Your task to perform on an android device: What's the news in Pakistan? Image 0: 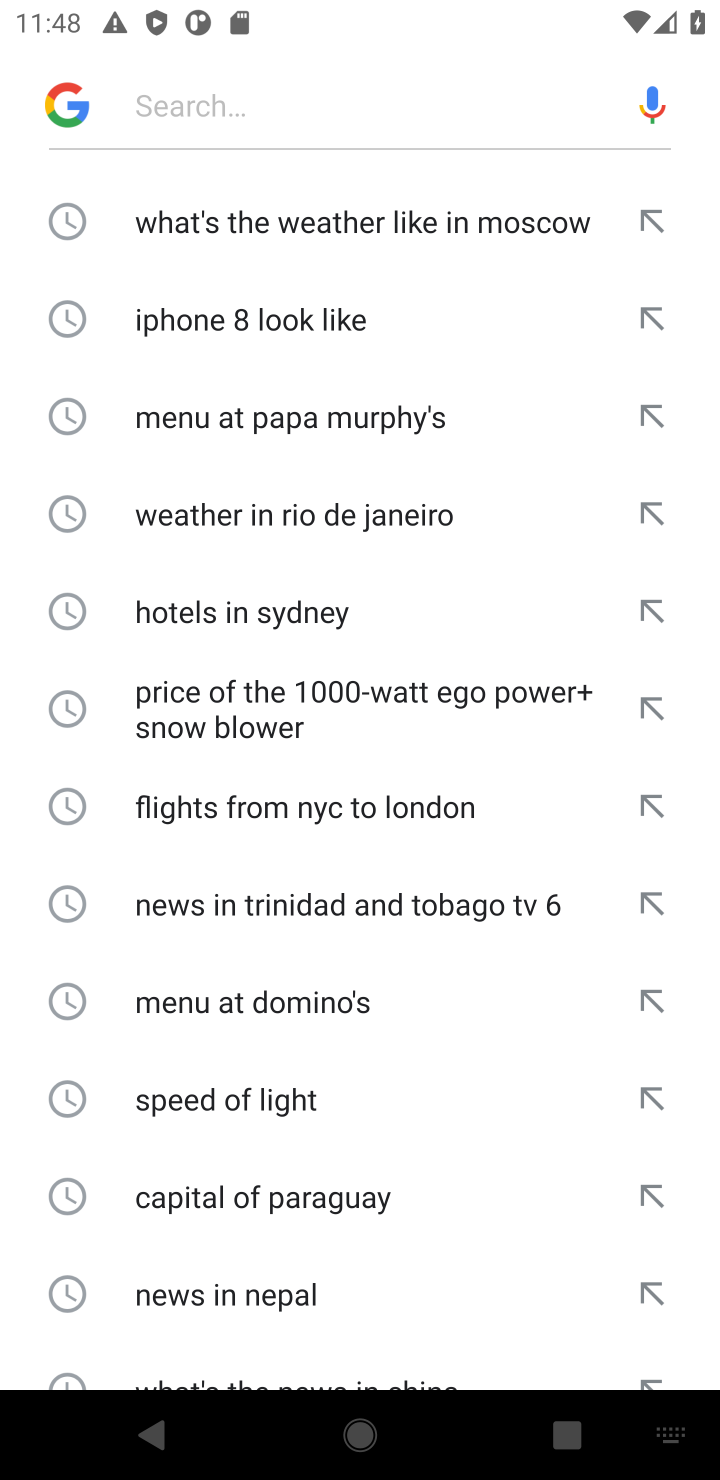
Step 0: press home button
Your task to perform on an android device: What's the news in Pakistan? Image 1: 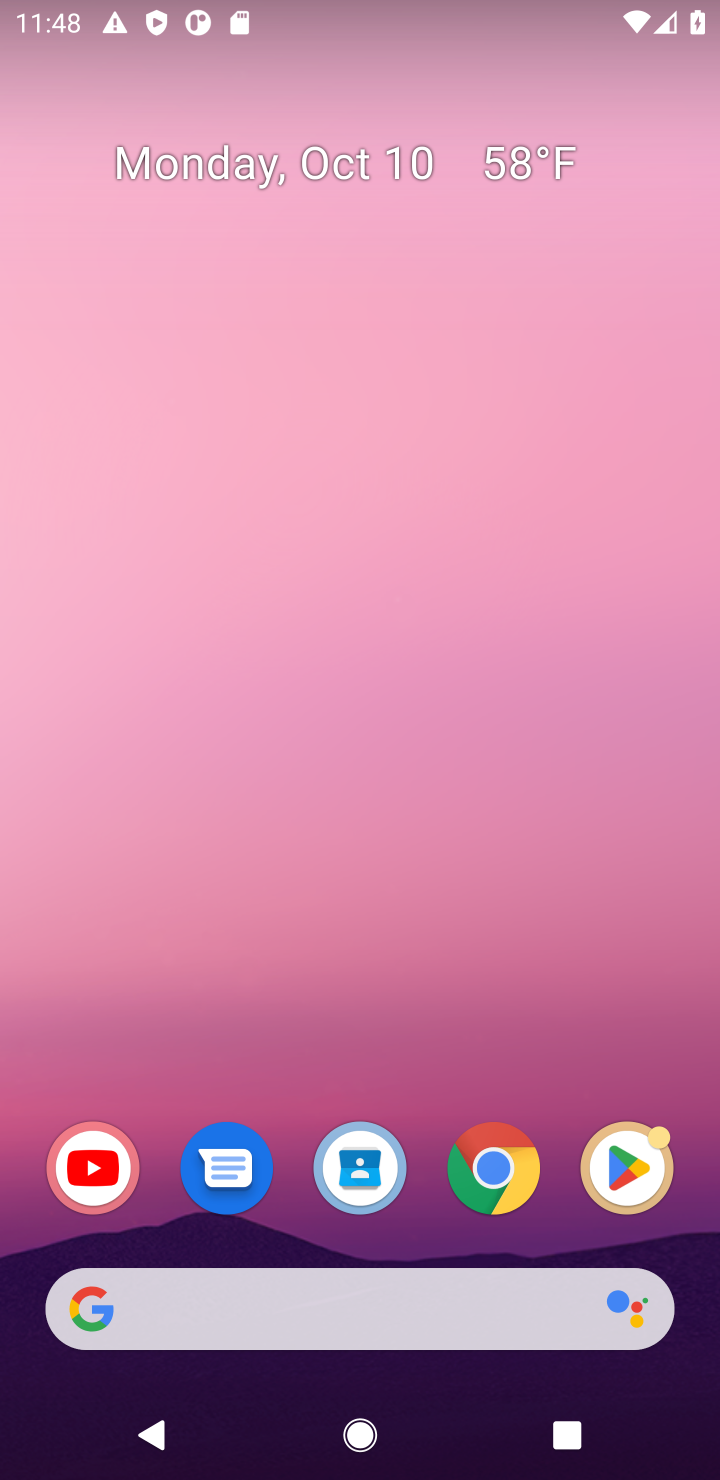
Step 1: click (332, 1317)
Your task to perform on an android device: What's the news in Pakistan? Image 2: 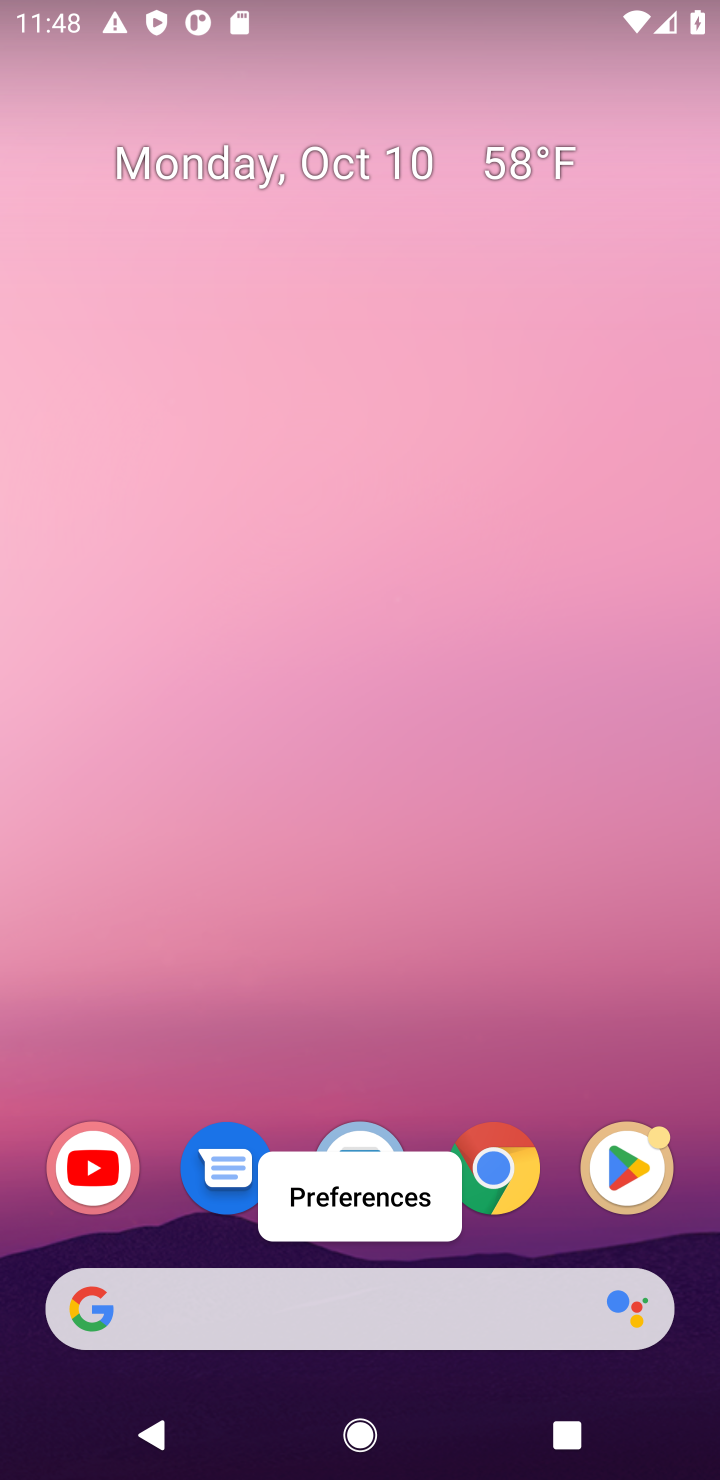
Step 2: click (317, 1334)
Your task to perform on an android device: What's the news in Pakistan? Image 3: 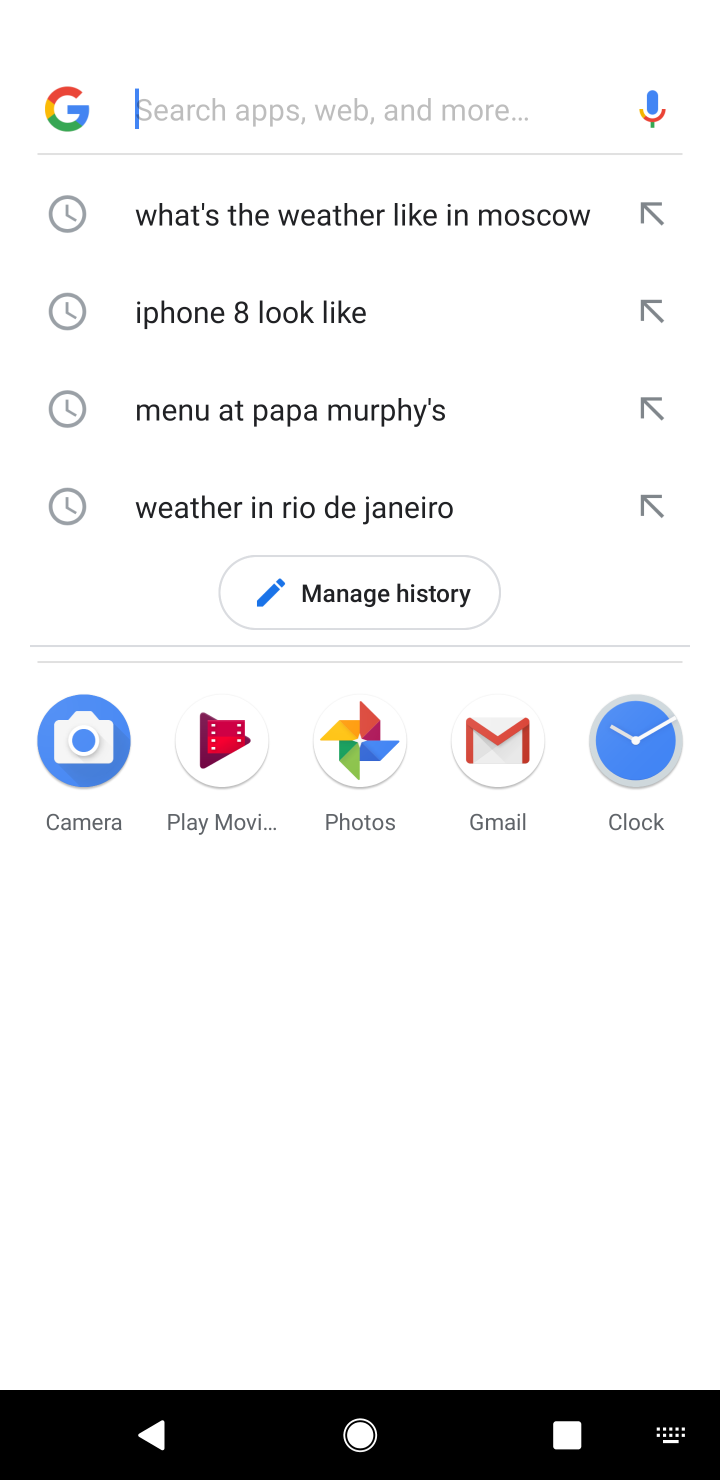
Step 3: type "news in Pakistan"
Your task to perform on an android device: What's the news in Pakistan? Image 4: 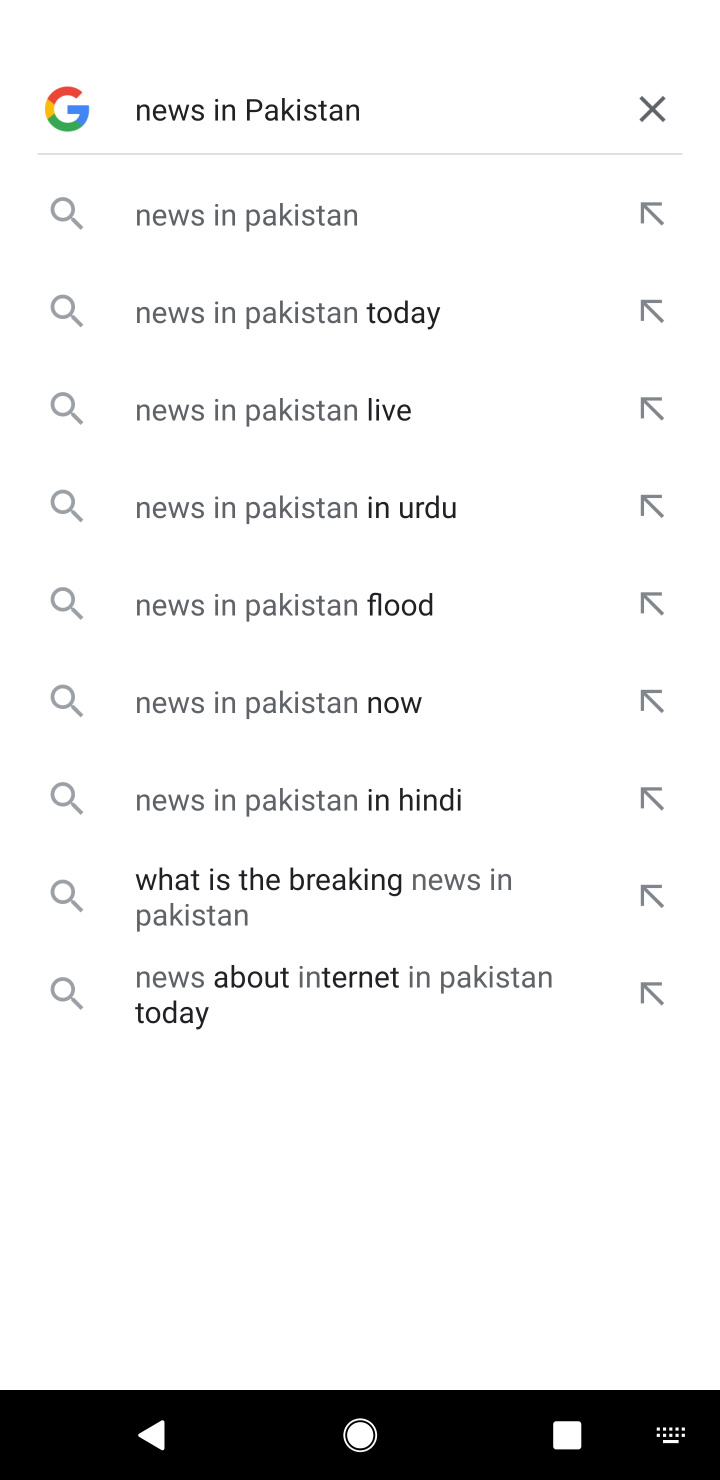
Step 4: type ""
Your task to perform on an android device: What's the news in Pakistan? Image 5: 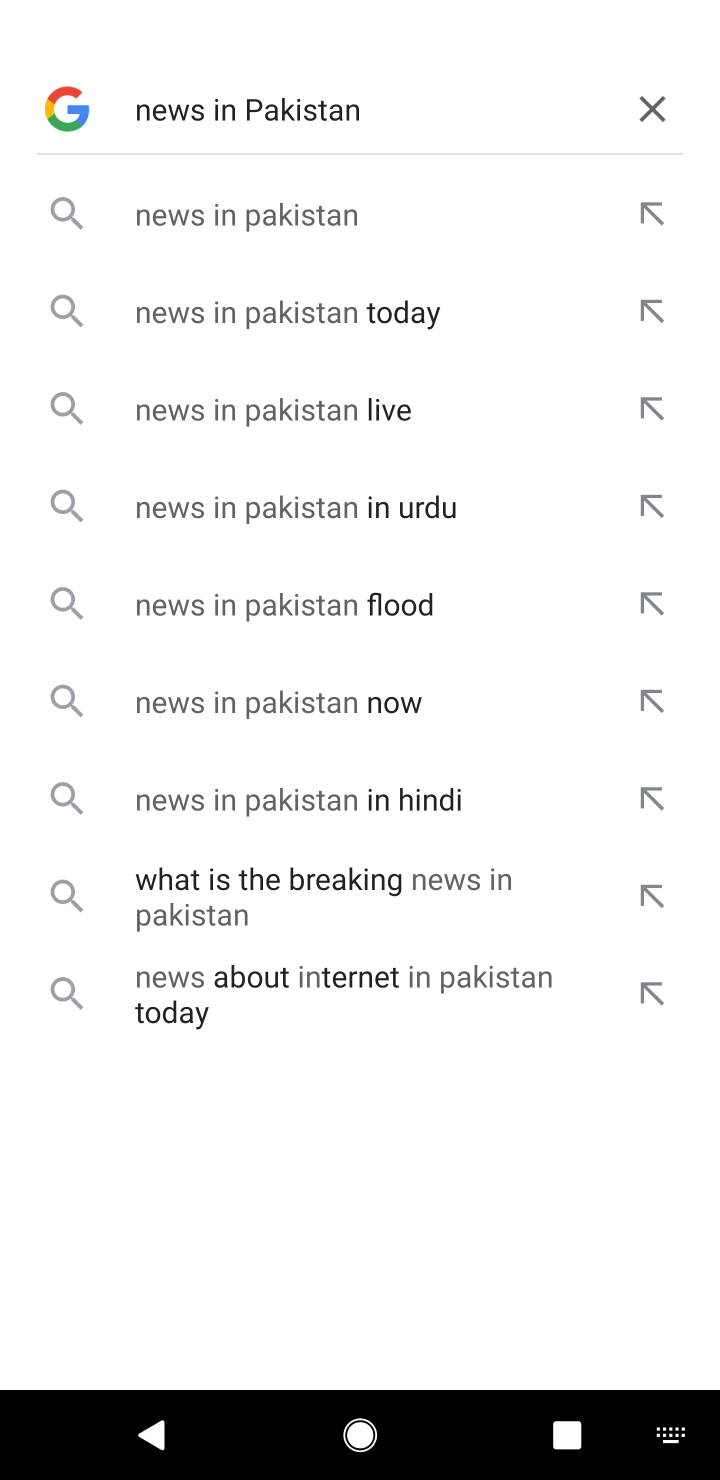
Step 5: click (349, 235)
Your task to perform on an android device: What's the news in Pakistan? Image 6: 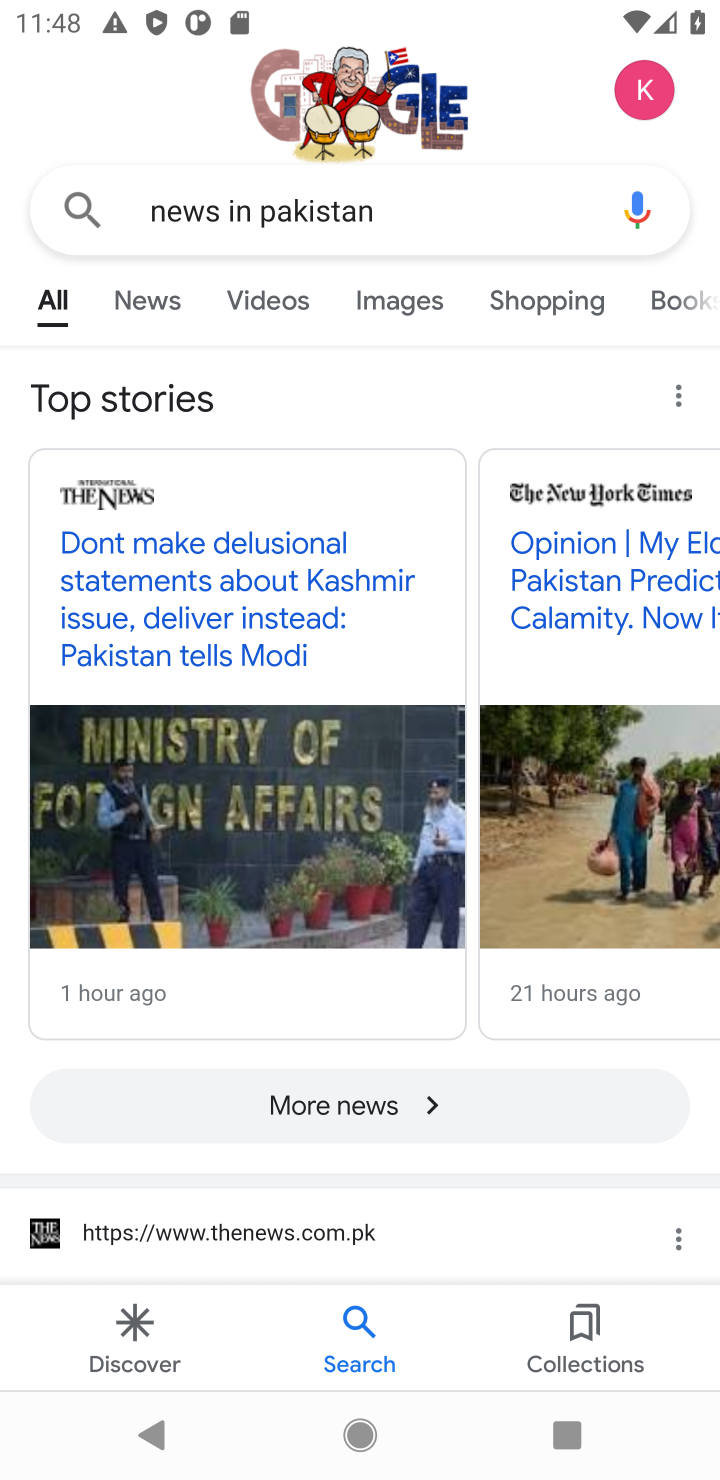
Step 6: click (138, 312)
Your task to perform on an android device: What's the news in Pakistan? Image 7: 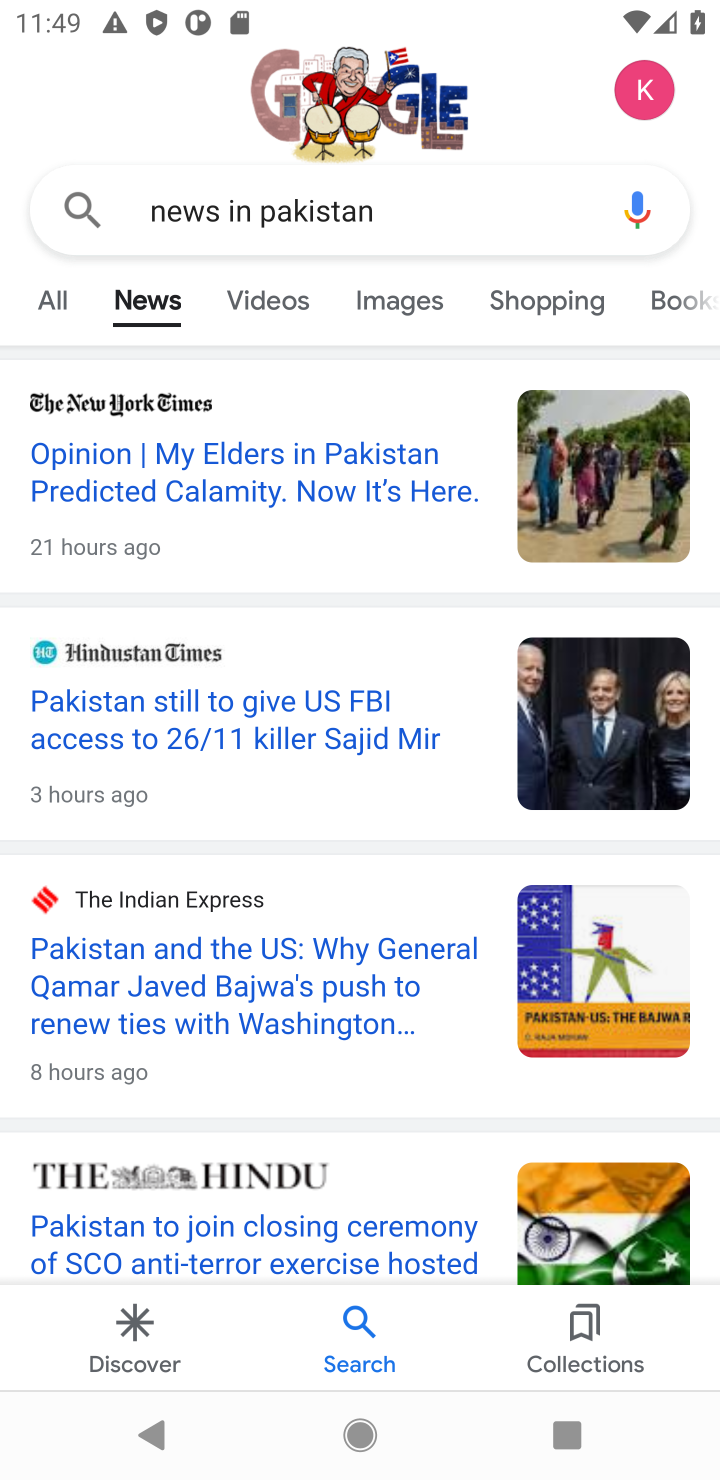
Step 7: task complete